Your task to perform on an android device: Turn off the flashlight Image 0: 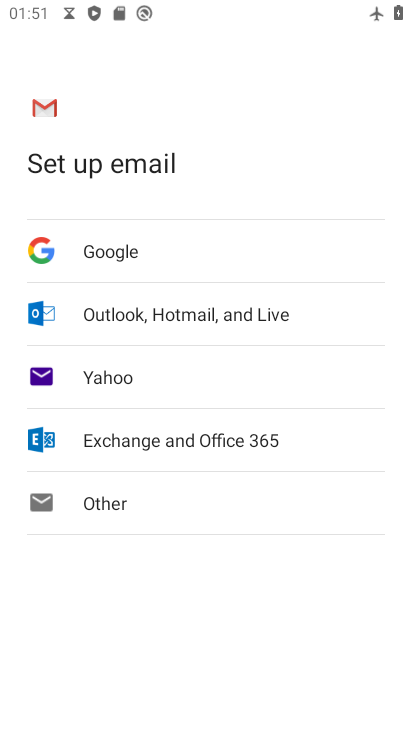
Step 0: press home button
Your task to perform on an android device: Turn off the flashlight Image 1: 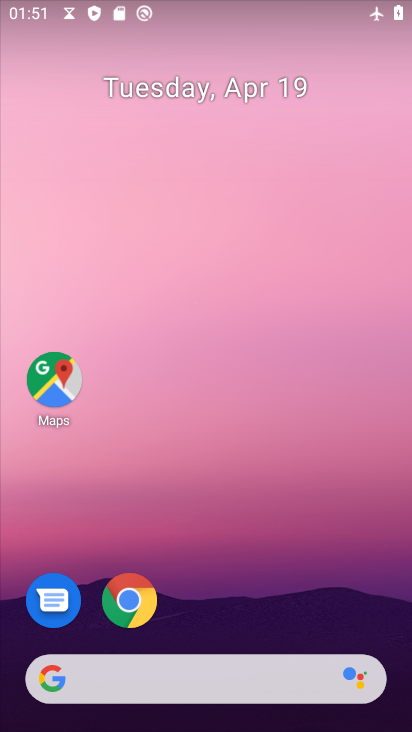
Step 1: drag from (187, 637) to (177, 29)
Your task to perform on an android device: Turn off the flashlight Image 2: 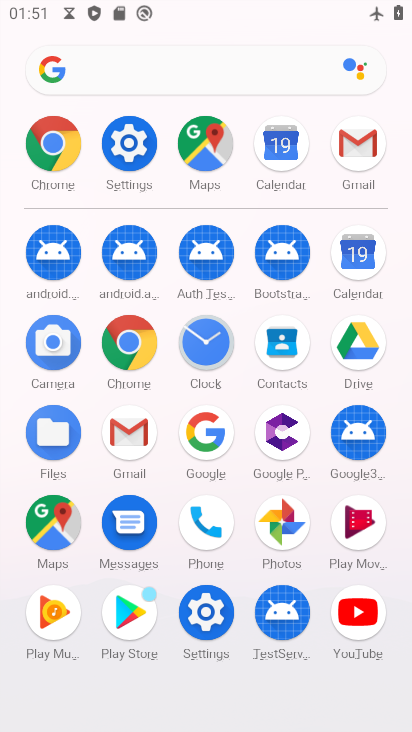
Step 2: click (110, 154)
Your task to perform on an android device: Turn off the flashlight Image 3: 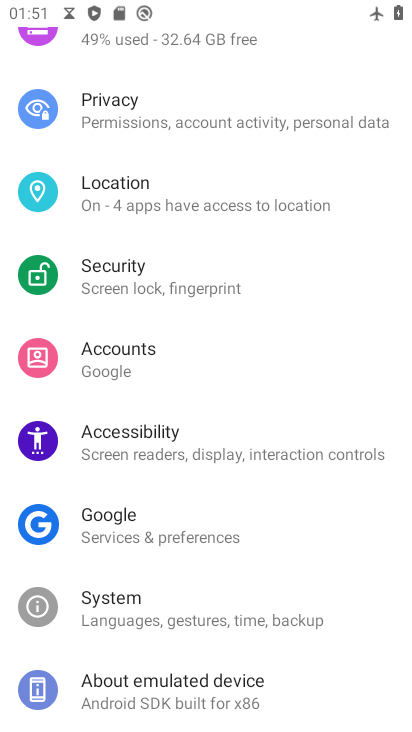
Step 3: drag from (125, 140) to (168, 599)
Your task to perform on an android device: Turn off the flashlight Image 4: 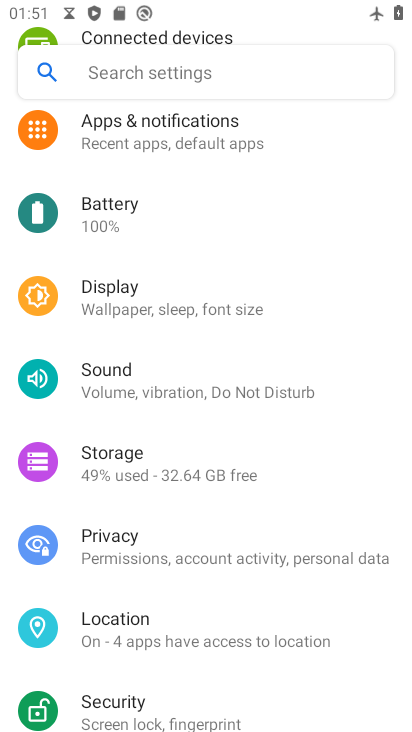
Step 4: click (200, 73)
Your task to perform on an android device: Turn off the flashlight Image 5: 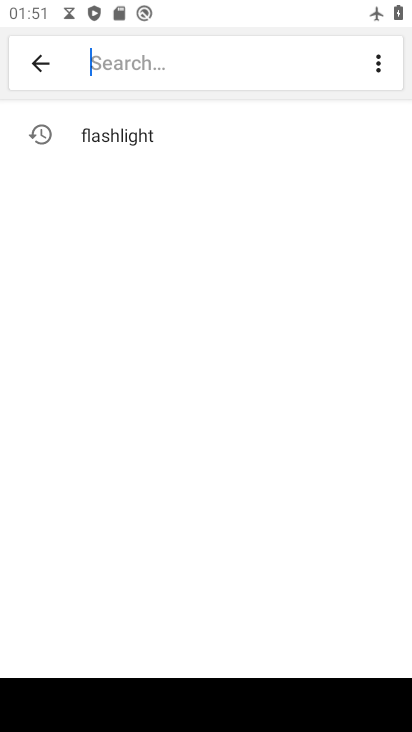
Step 5: type "fl"
Your task to perform on an android device: Turn off the flashlight Image 6: 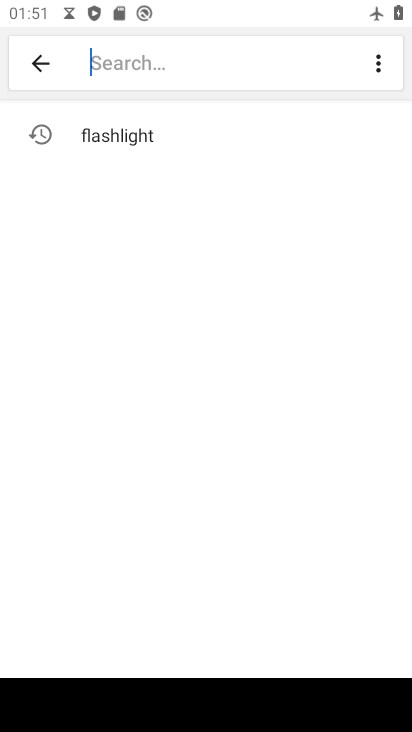
Step 6: click (194, 136)
Your task to perform on an android device: Turn off the flashlight Image 7: 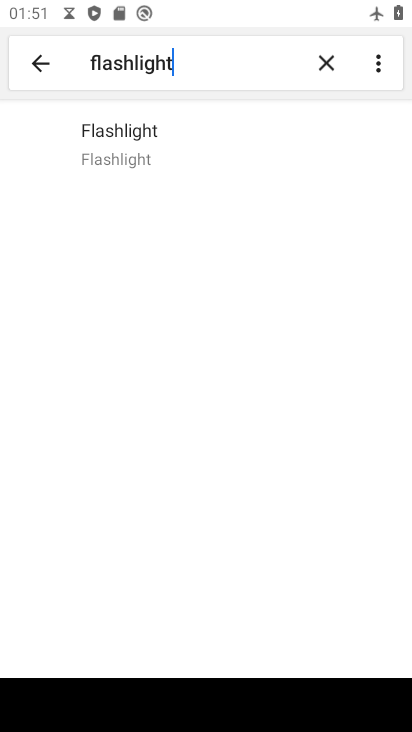
Step 7: task complete